Your task to perform on an android device: delete location history Image 0: 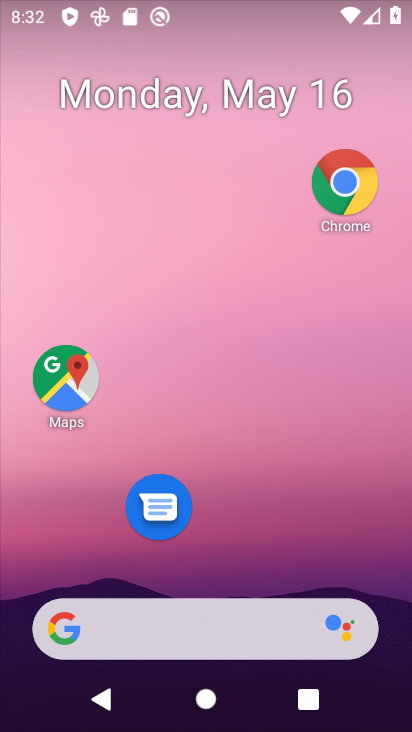
Step 0: click (53, 364)
Your task to perform on an android device: delete location history Image 1: 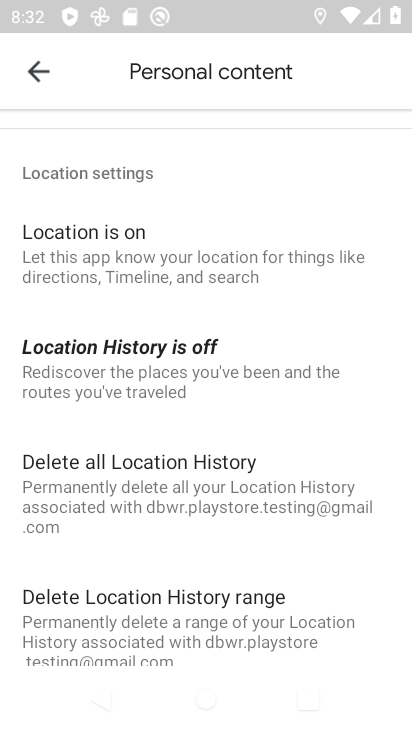
Step 1: click (162, 483)
Your task to perform on an android device: delete location history Image 2: 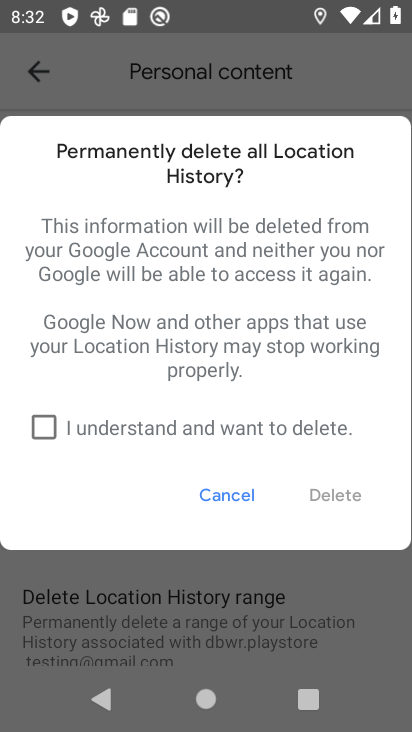
Step 2: click (46, 417)
Your task to perform on an android device: delete location history Image 3: 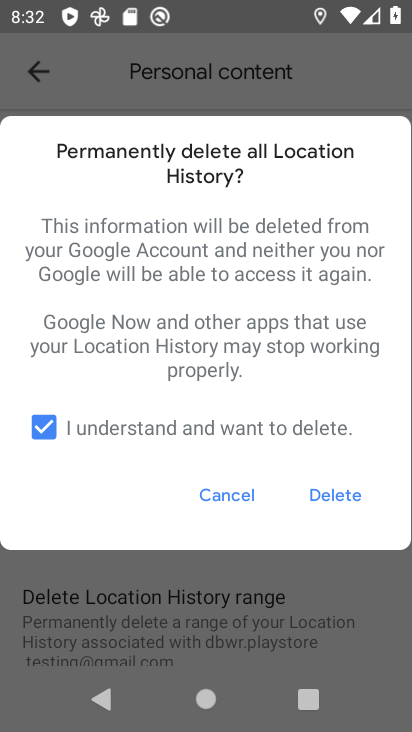
Step 3: click (323, 489)
Your task to perform on an android device: delete location history Image 4: 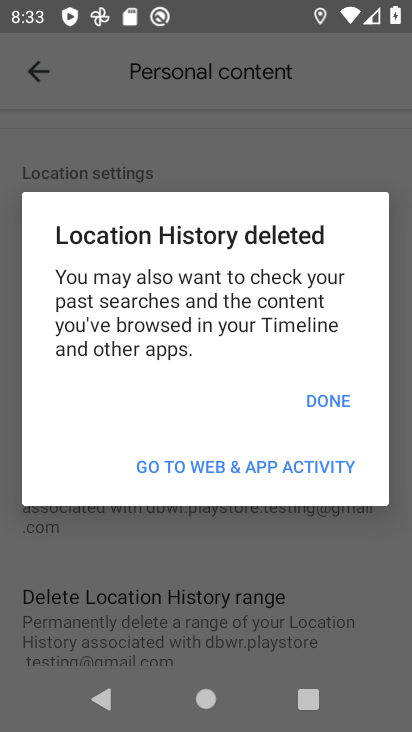
Step 4: click (323, 388)
Your task to perform on an android device: delete location history Image 5: 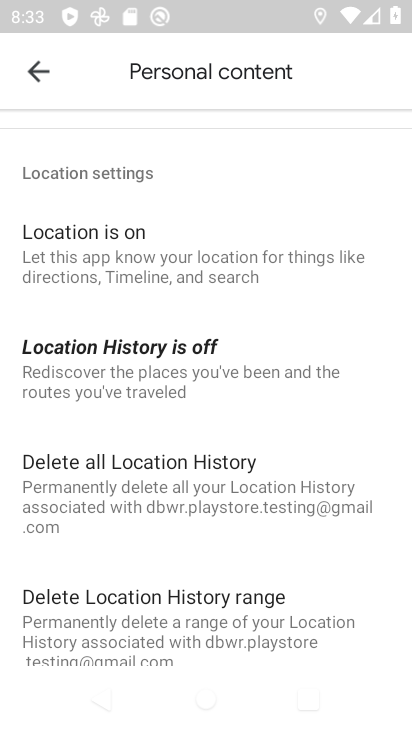
Step 5: task complete